Your task to perform on an android device: Open Wikipedia Image 0: 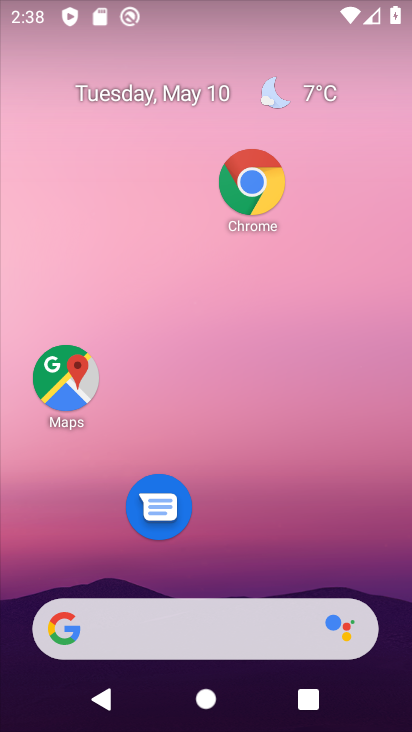
Step 0: drag from (254, 576) to (314, 130)
Your task to perform on an android device: Open Wikipedia Image 1: 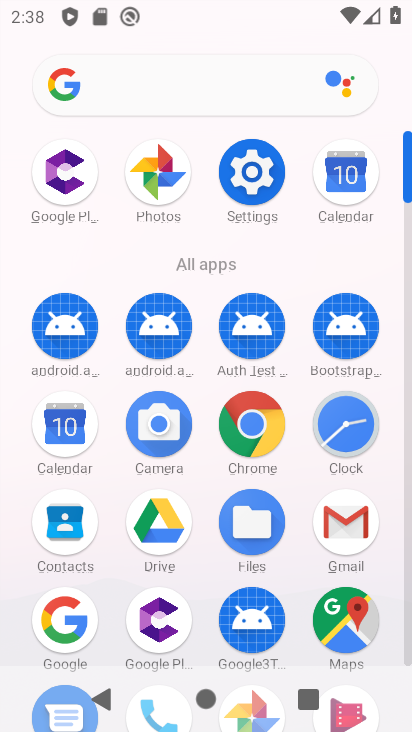
Step 1: click (265, 427)
Your task to perform on an android device: Open Wikipedia Image 2: 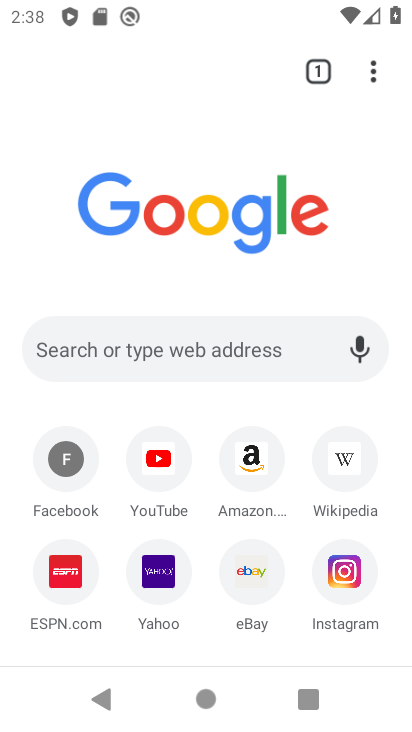
Step 2: click (265, 427)
Your task to perform on an android device: Open Wikipedia Image 3: 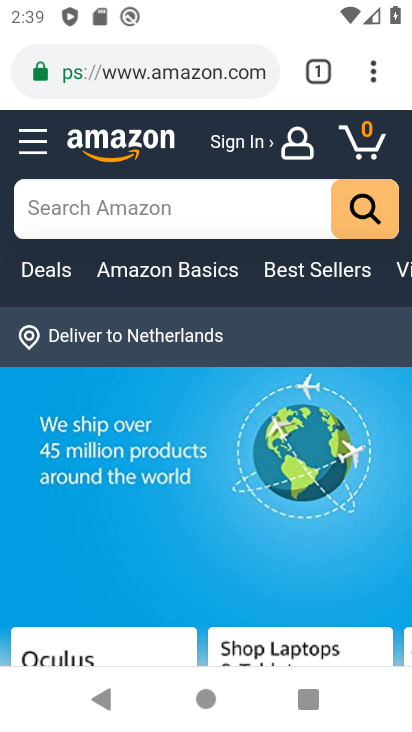
Step 3: click (300, 75)
Your task to perform on an android device: Open Wikipedia Image 4: 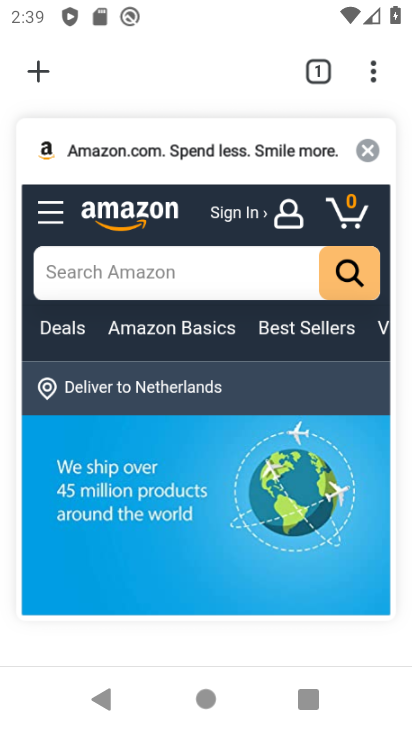
Step 4: click (12, 74)
Your task to perform on an android device: Open Wikipedia Image 5: 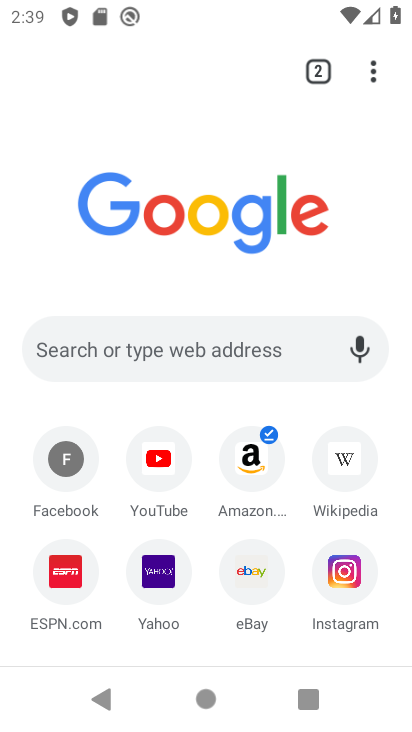
Step 5: click (323, 466)
Your task to perform on an android device: Open Wikipedia Image 6: 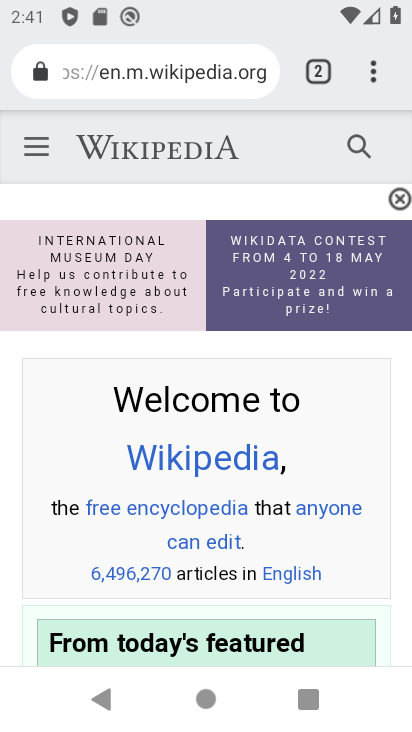
Step 6: task complete